Your task to perform on an android device: Open sound settings Image 0: 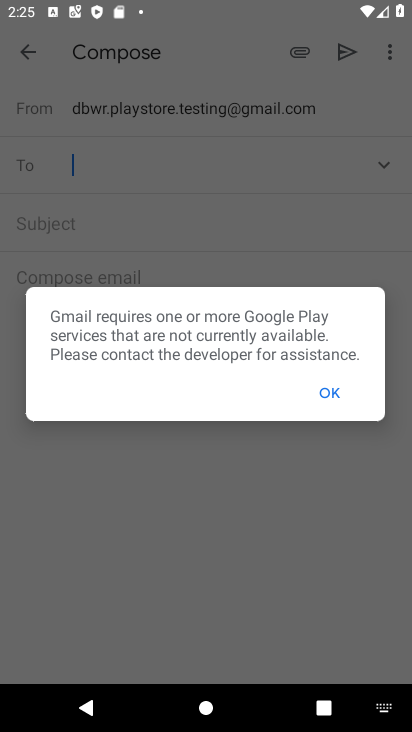
Step 0: press home button
Your task to perform on an android device: Open sound settings Image 1: 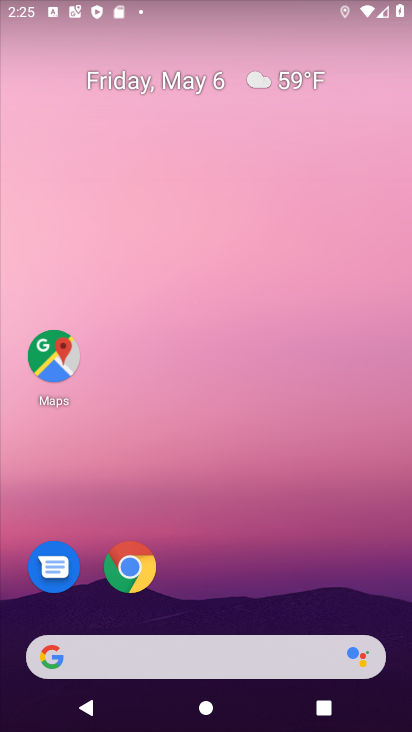
Step 1: drag from (380, 609) to (310, 115)
Your task to perform on an android device: Open sound settings Image 2: 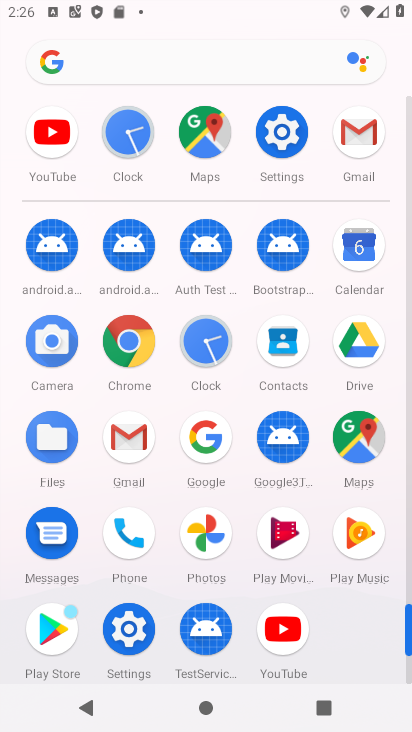
Step 2: click (128, 627)
Your task to perform on an android device: Open sound settings Image 3: 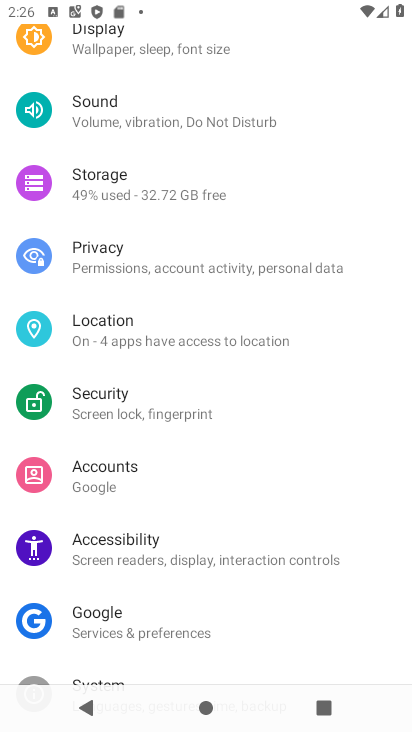
Step 3: click (98, 105)
Your task to perform on an android device: Open sound settings Image 4: 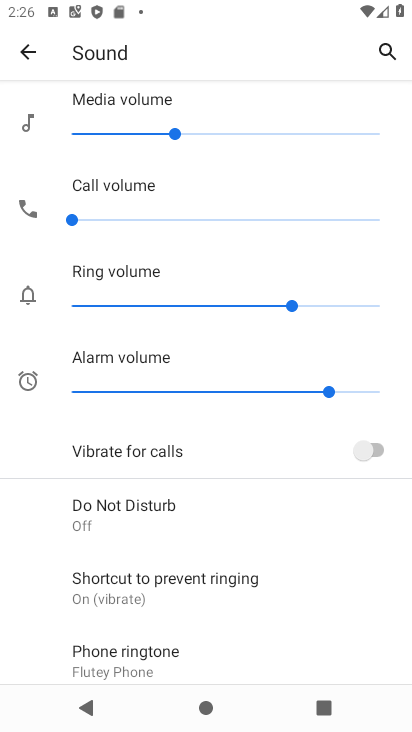
Step 4: drag from (275, 612) to (282, 274)
Your task to perform on an android device: Open sound settings Image 5: 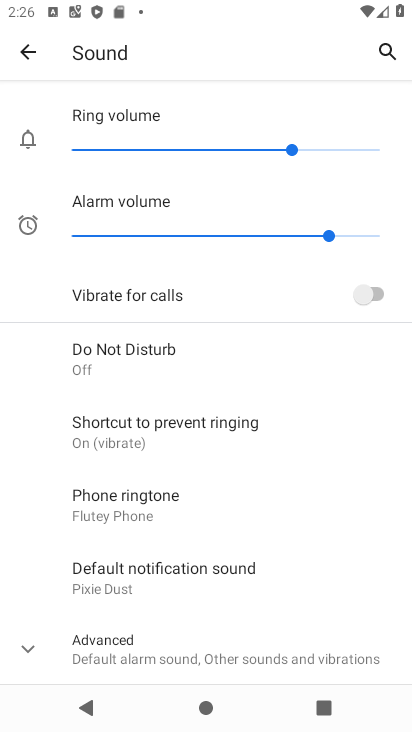
Step 5: click (21, 640)
Your task to perform on an android device: Open sound settings Image 6: 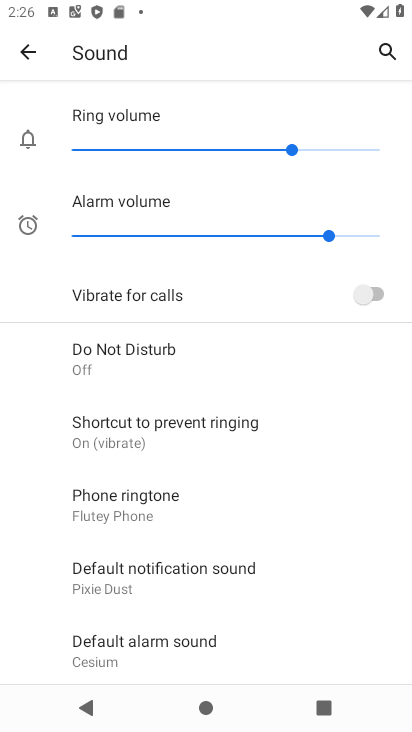
Step 6: task complete